Your task to perform on an android device: Open my contact list Image 0: 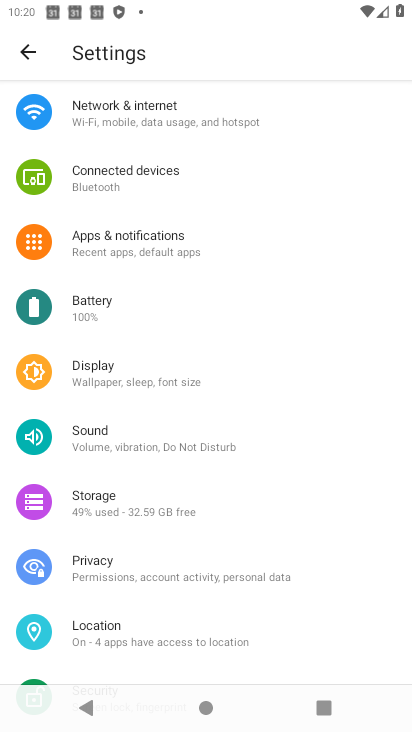
Step 0: press home button
Your task to perform on an android device: Open my contact list Image 1: 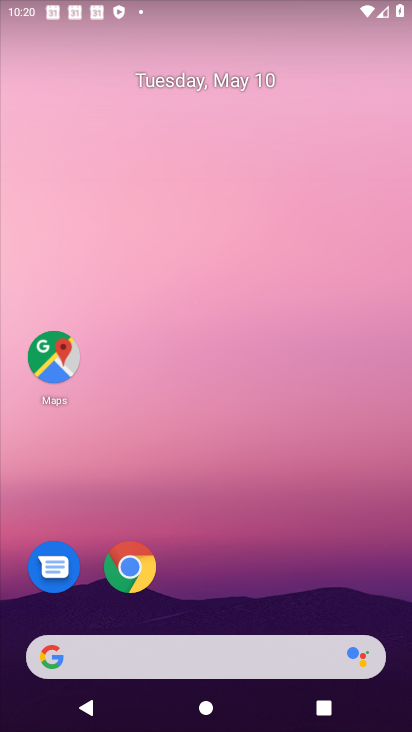
Step 1: drag from (253, 643) to (314, 10)
Your task to perform on an android device: Open my contact list Image 2: 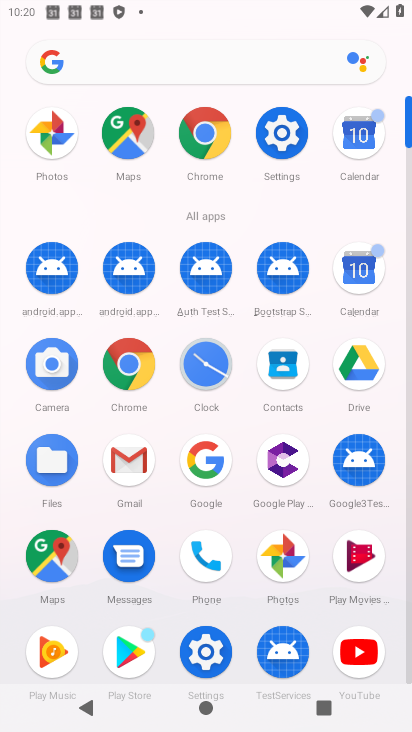
Step 2: click (283, 372)
Your task to perform on an android device: Open my contact list Image 3: 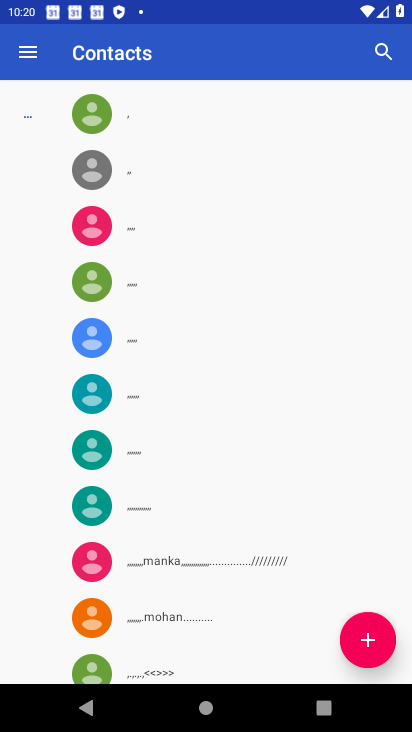
Step 3: task complete